Your task to perform on an android device: see tabs open on other devices in the chrome app Image 0: 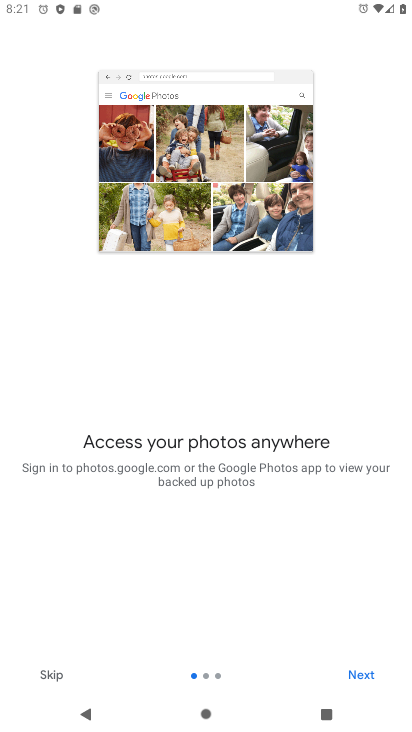
Step 0: press home button
Your task to perform on an android device: see tabs open on other devices in the chrome app Image 1: 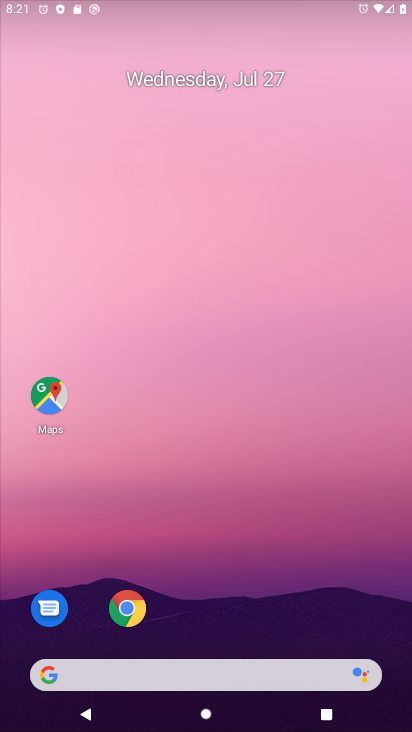
Step 1: drag from (233, 559) to (228, 120)
Your task to perform on an android device: see tabs open on other devices in the chrome app Image 2: 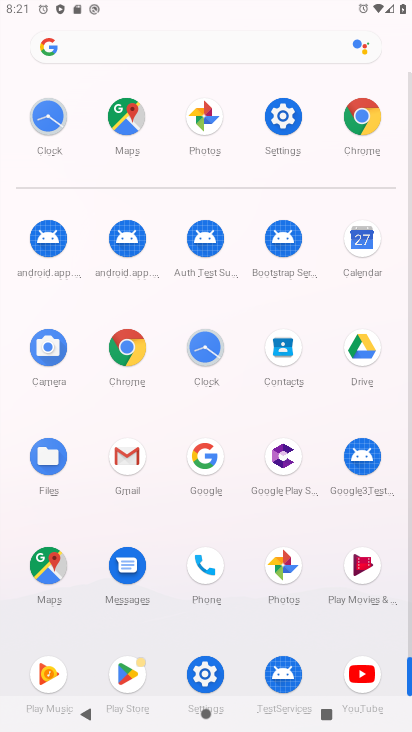
Step 2: click (131, 341)
Your task to perform on an android device: see tabs open on other devices in the chrome app Image 3: 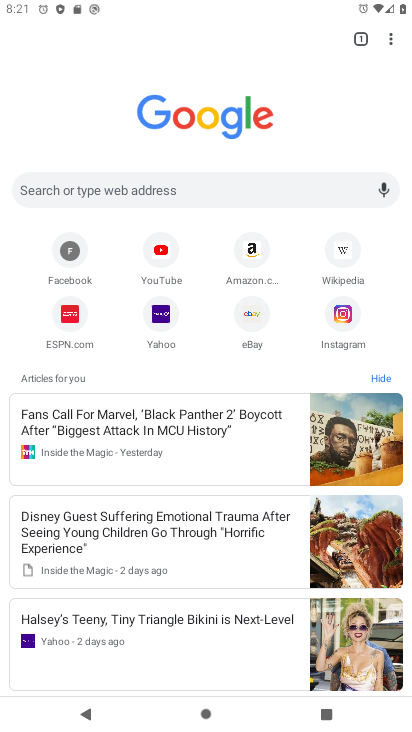
Step 3: task complete